Your task to perform on an android device: manage bookmarks in the chrome app Image 0: 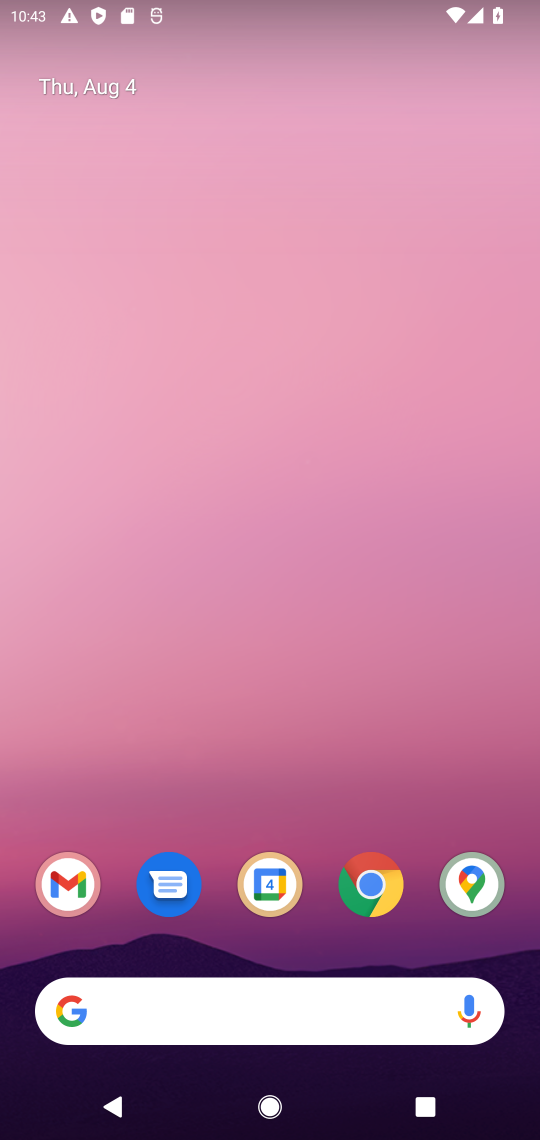
Step 0: click (362, 905)
Your task to perform on an android device: manage bookmarks in the chrome app Image 1: 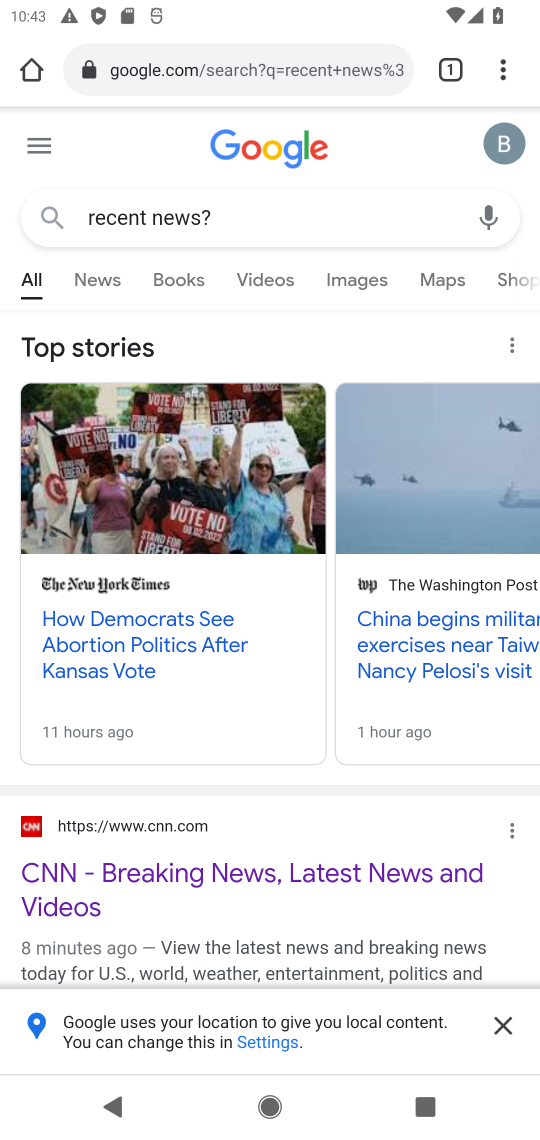
Step 1: drag from (500, 83) to (295, 409)
Your task to perform on an android device: manage bookmarks in the chrome app Image 2: 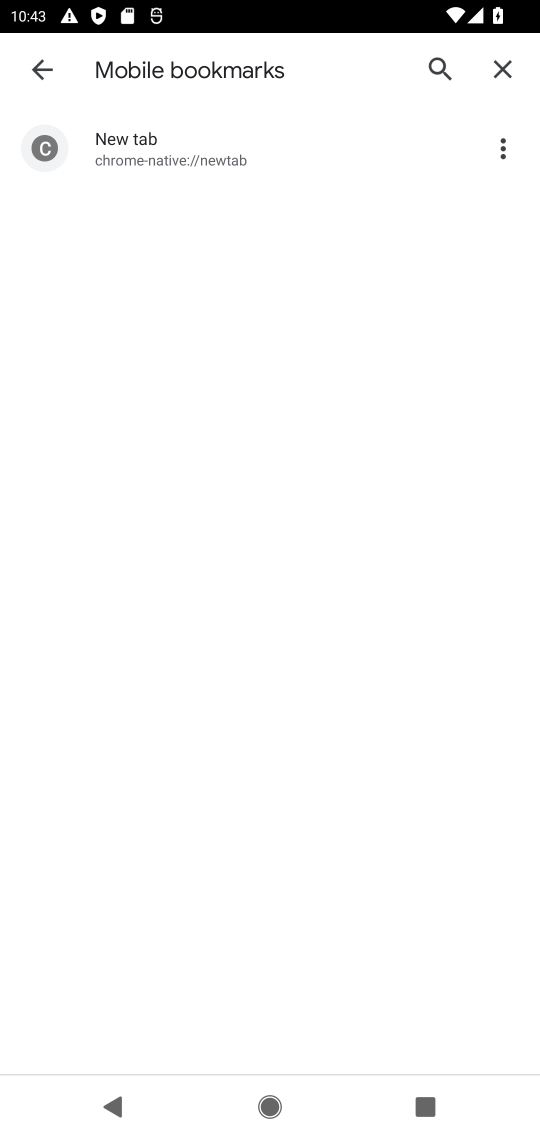
Step 2: click (252, 151)
Your task to perform on an android device: manage bookmarks in the chrome app Image 3: 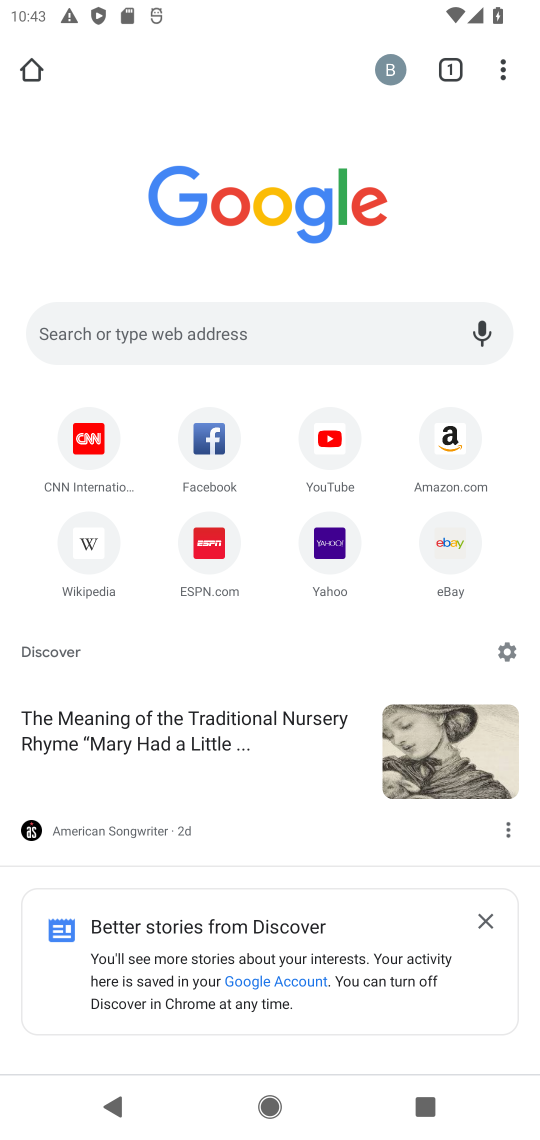
Step 3: task complete